Your task to perform on an android device: install app "Messenger Lite" Image 0: 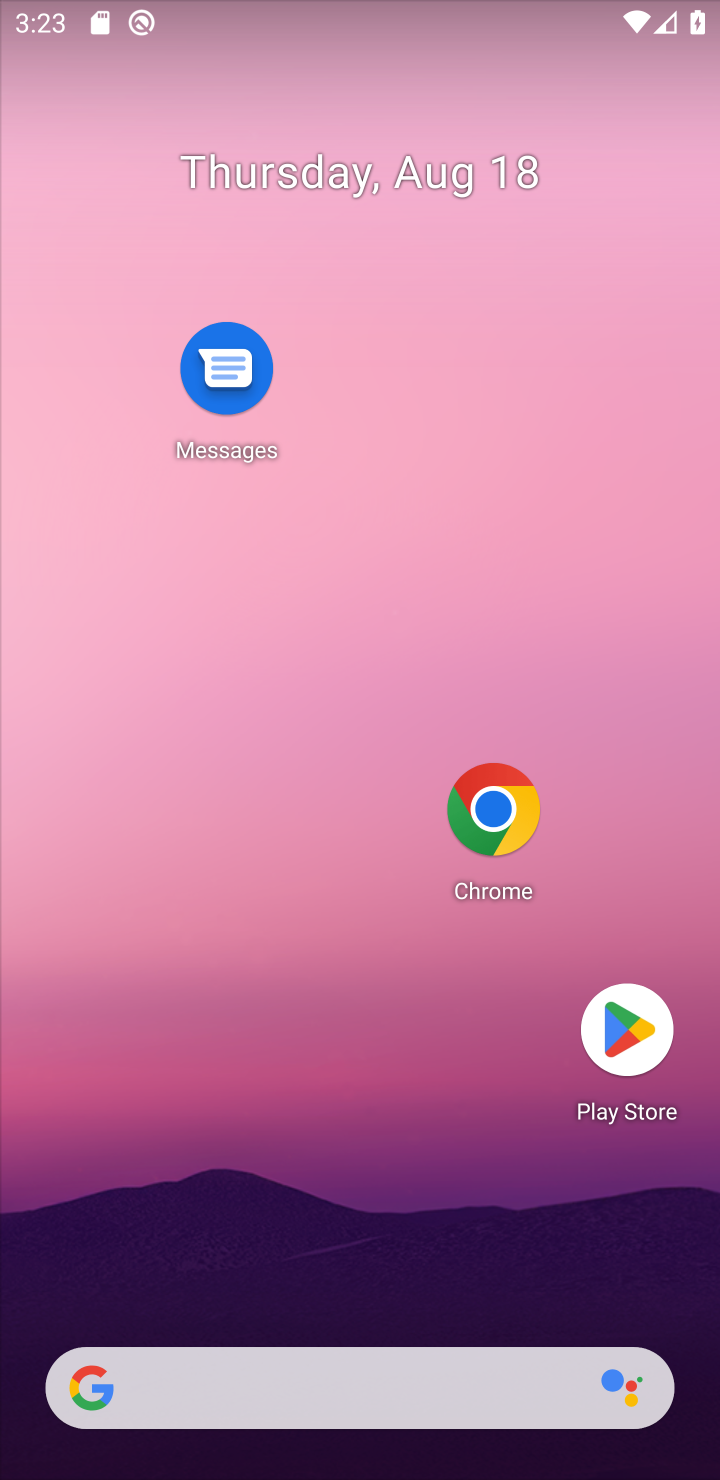
Step 0: click (612, 1024)
Your task to perform on an android device: install app "Messenger Lite" Image 1: 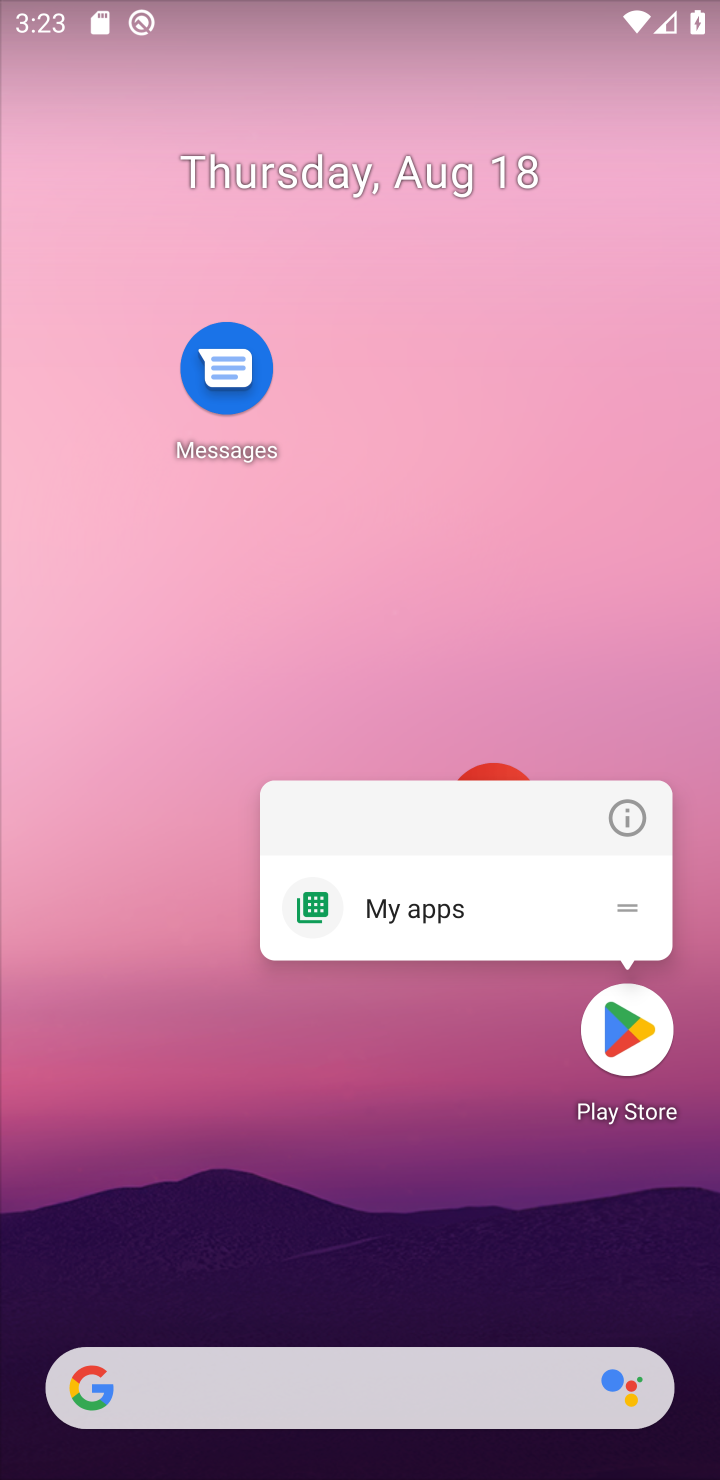
Step 1: click (612, 1041)
Your task to perform on an android device: install app "Messenger Lite" Image 2: 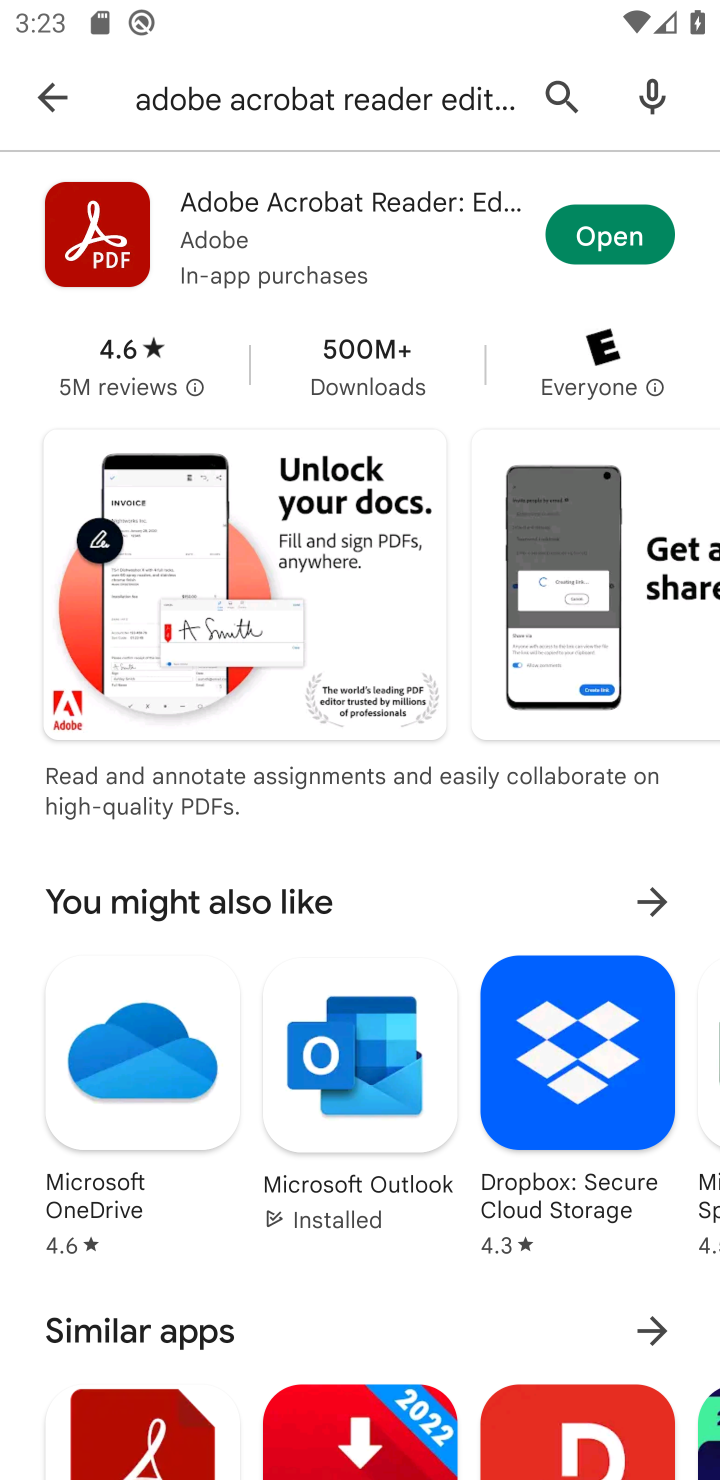
Step 2: click (52, 96)
Your task to perform on an android device: install app "Messenger Lite" Image 3: 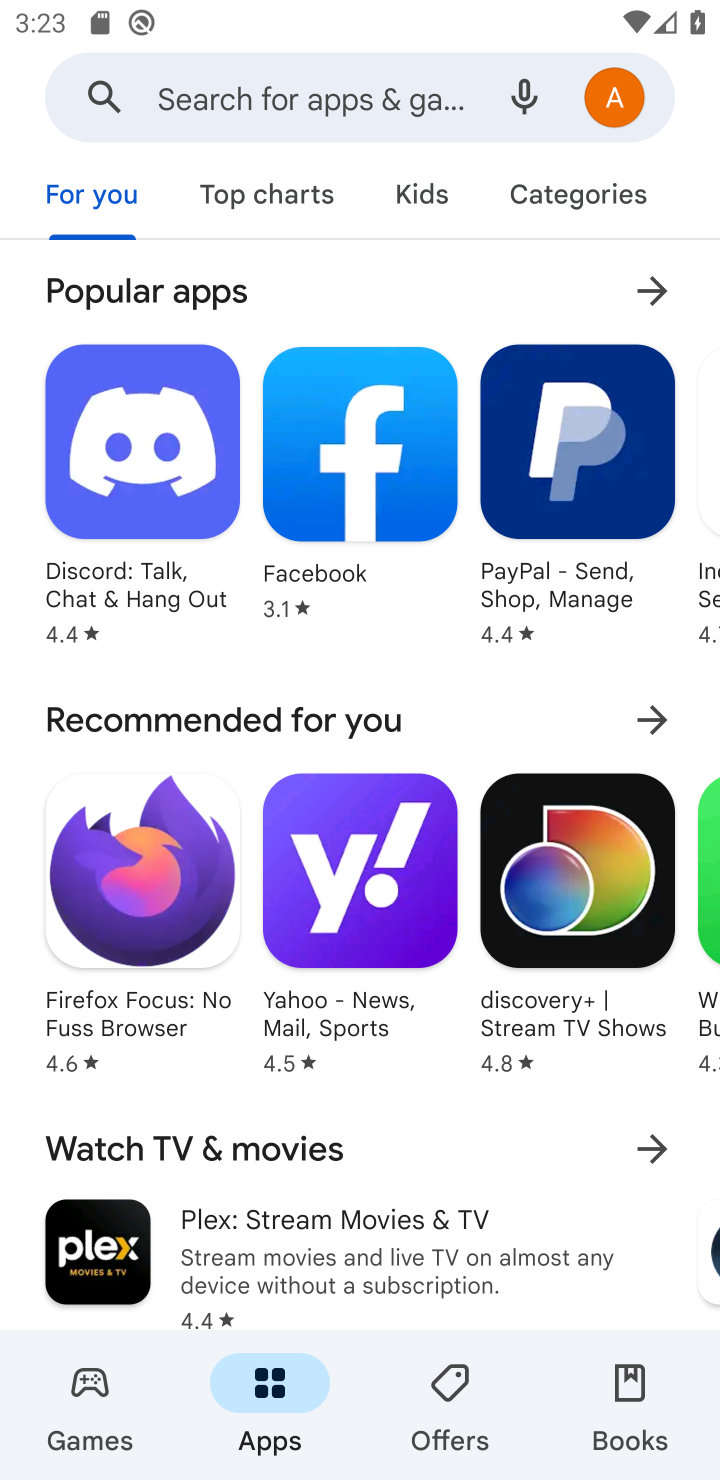
Step 3: click (276, 95)
Your task to perform on an android device: install app "Messenger Lite" Image 4: 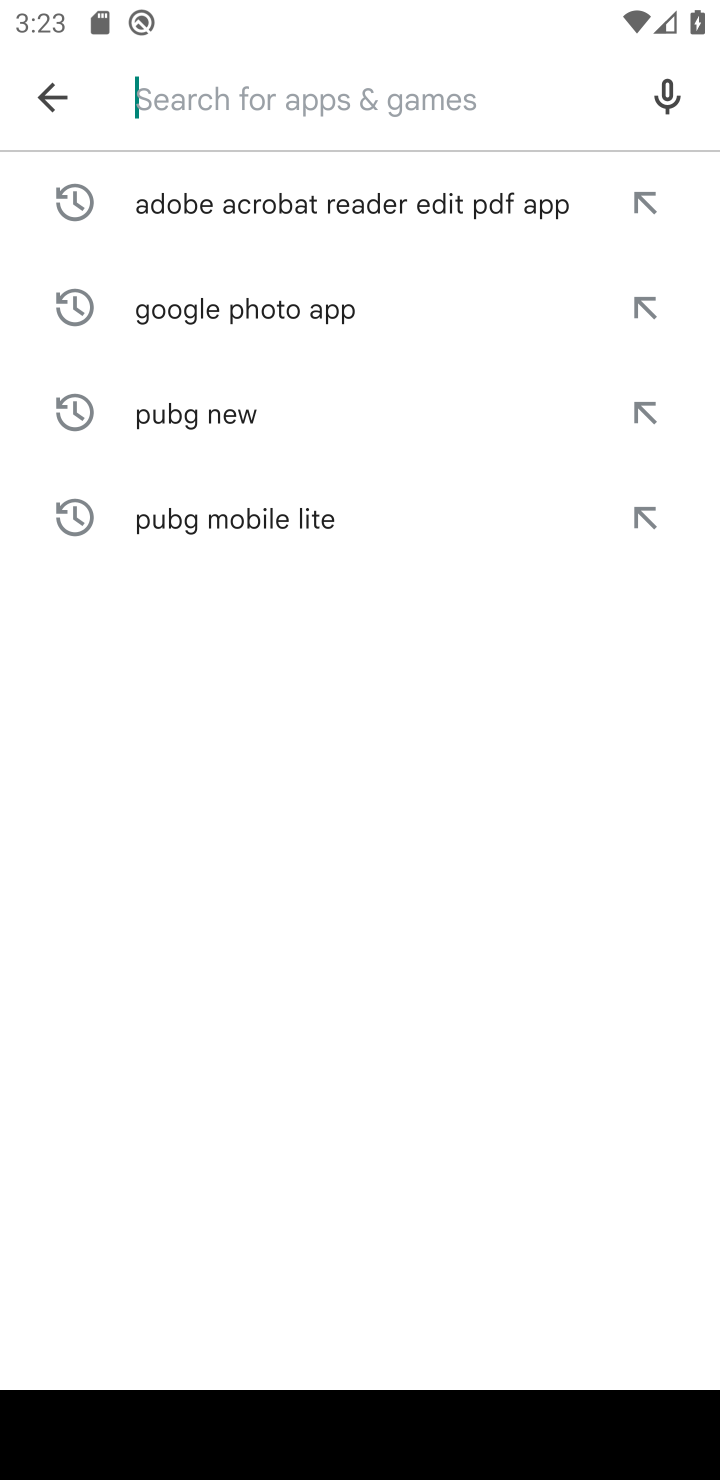
Step 4: type "Messenger Lite "
Your task to perform on an android device: install app "Messenger Lite" Image 5: 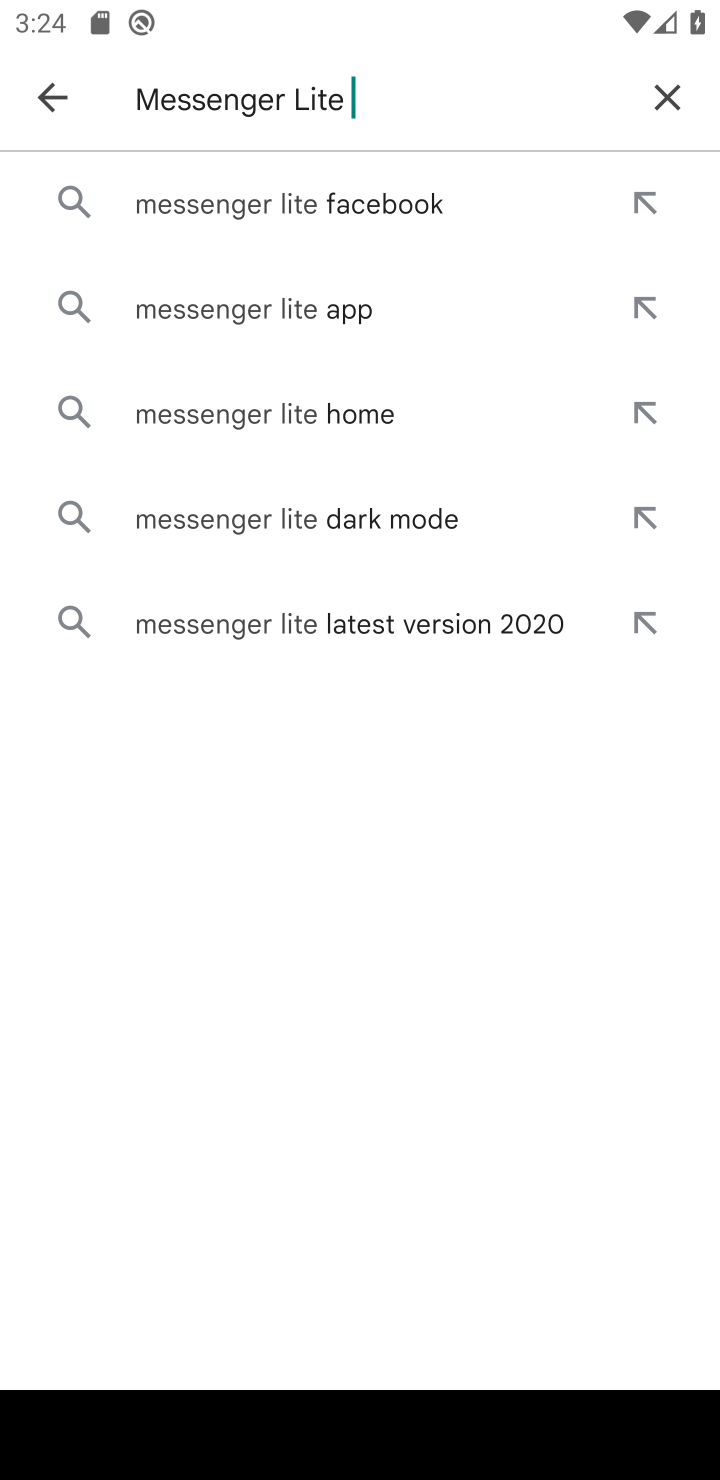
Step 5: click (264, 283)
Your task to perform on an android device: install app "Messenger Lite" Image 6: 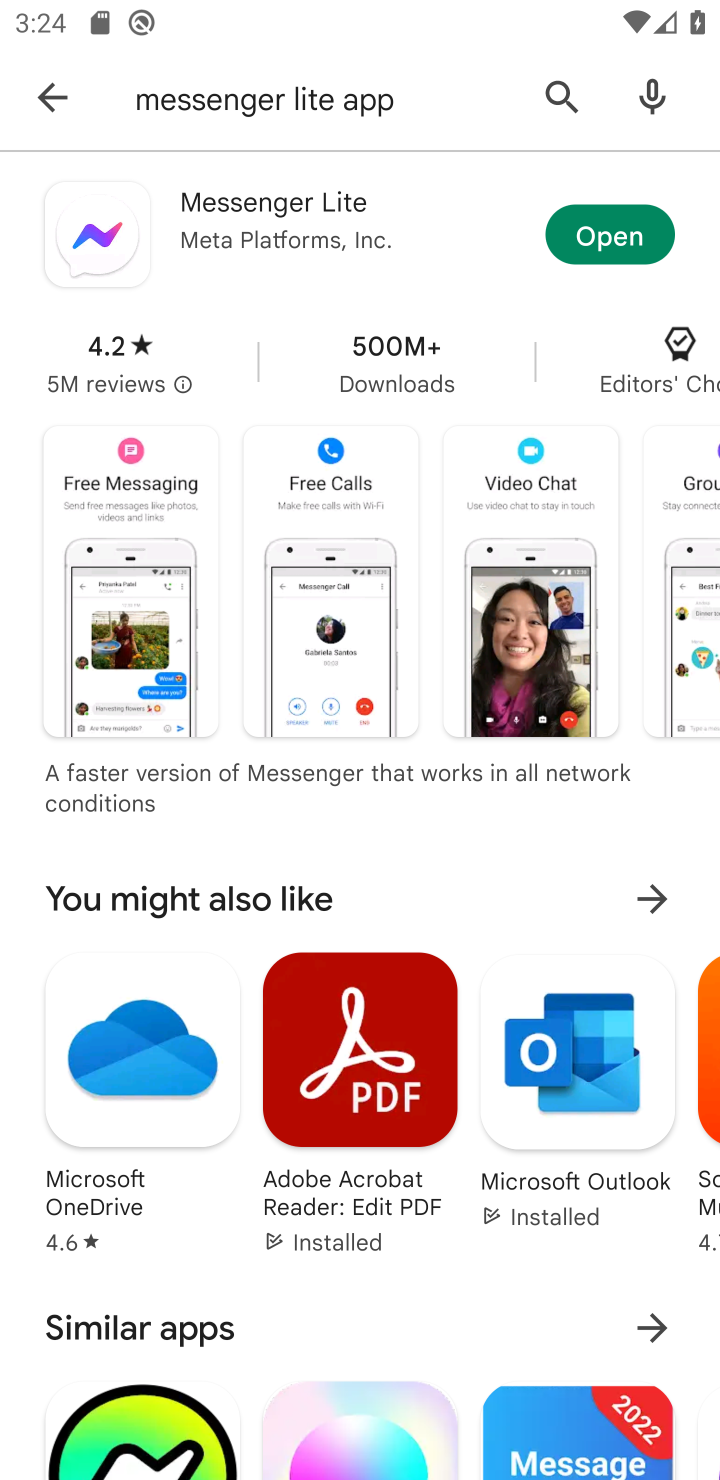
Step 6: click (628, 243)
Your task to perform on an android device: install app "Messenger Lite" Image 7: 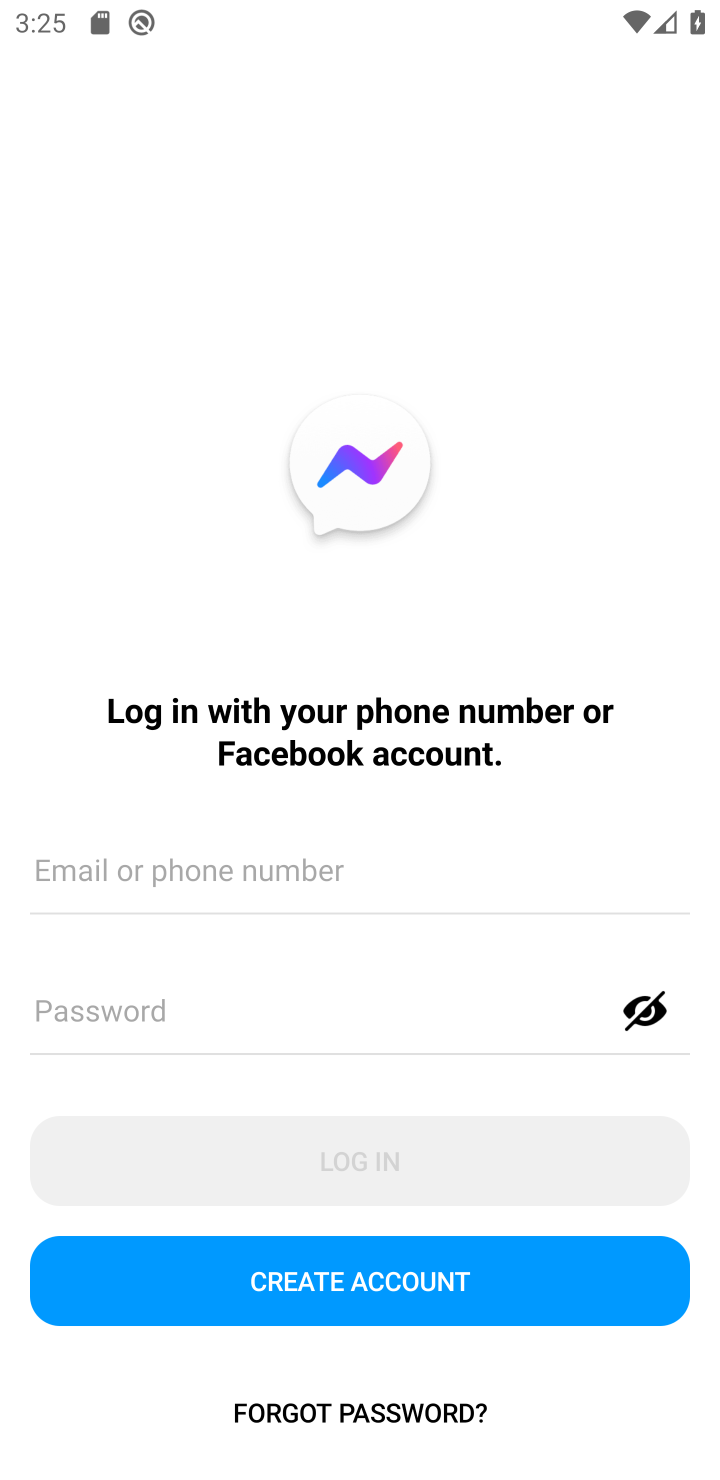
Step 7: task complete